Your task to perform on an android device: Go to notification settings Image 0: 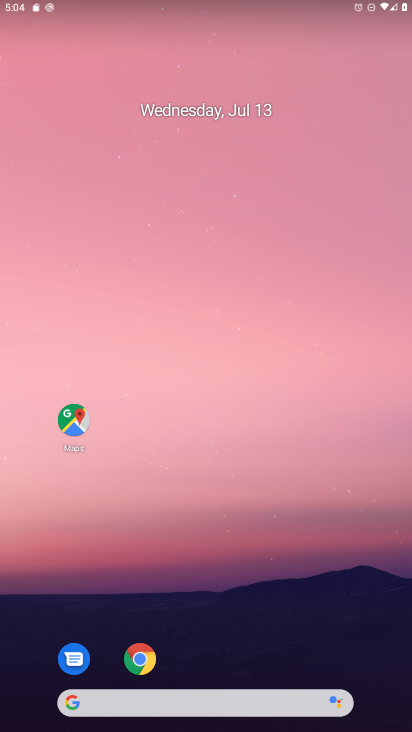
Step 0: drag from (318, 600) to (262, 59)
Your task to perform on an android device: Go to notification settings Image 1: 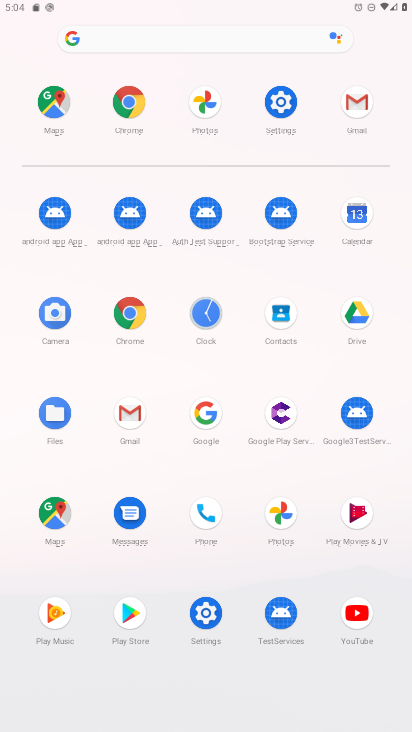
Step 1: click (273, 101)
Your task to perform on an android device: Go to notification settings Image 2: 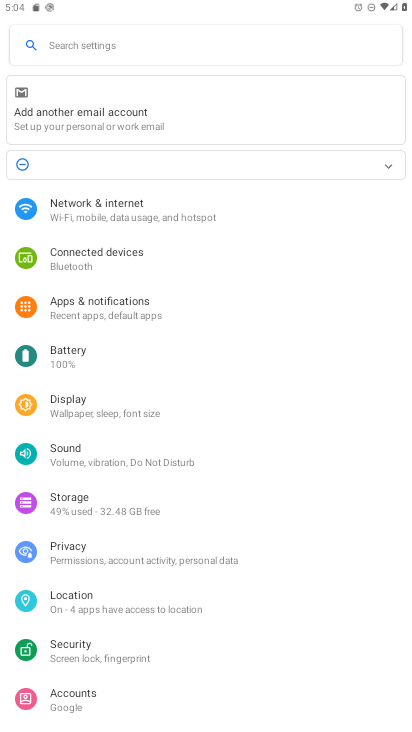
Step 2: click (86, 301)
Your task to perform on an android device: Go to notification settings Image 3: 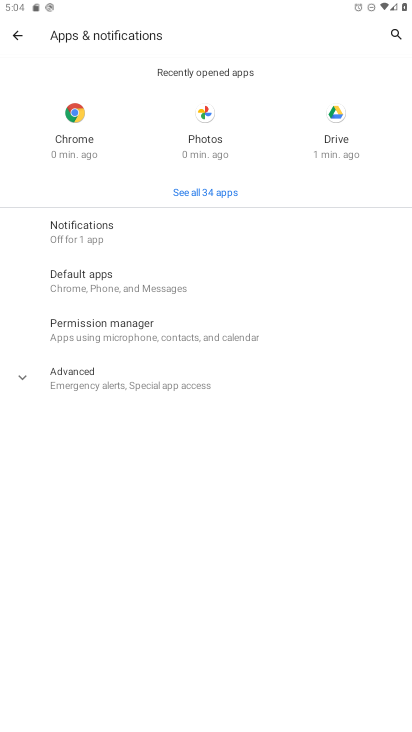
Step 3: click (66, 236)
Your task to perform on an android device: Go to notification settings Image 4: 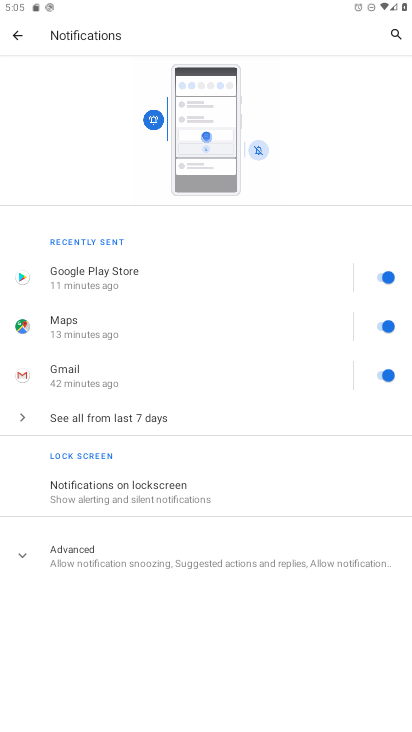
Step 4: click (196, 570)
Your task to perform on an android device: Go to notification settings Image 5: 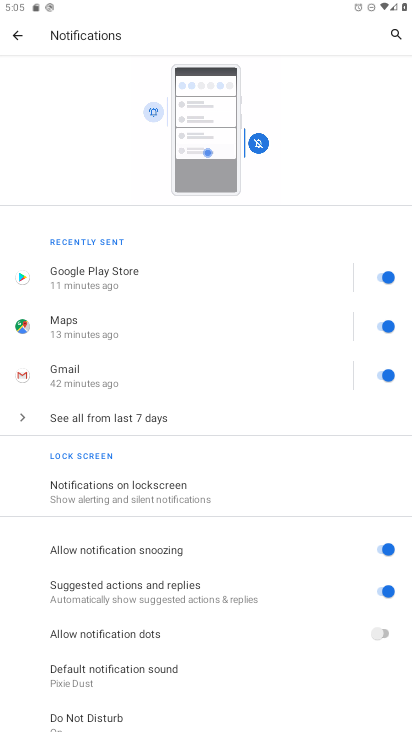
Step 5: task complete